Your task to perform on an android device: turn off location Image 0: 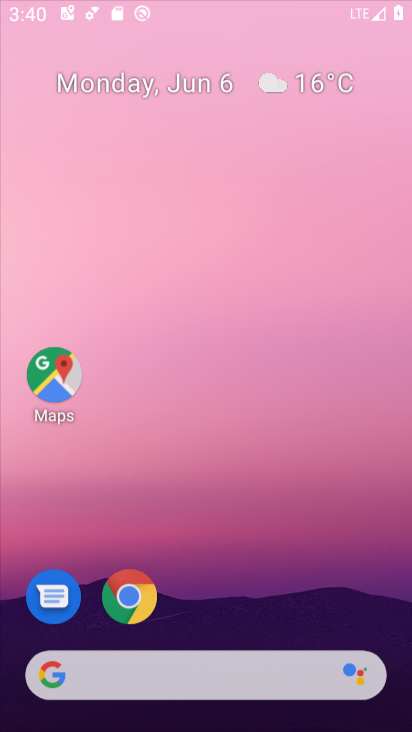
Step 0: click (176, 14)
Your task to perform on an android device: turn off location Image 1: 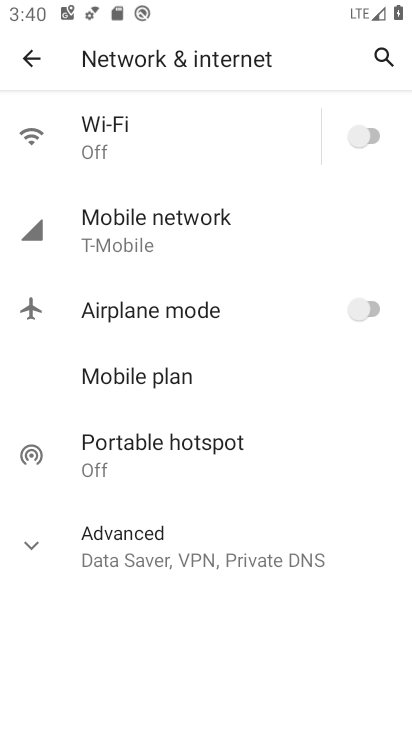
Step 1: press back button
Your task to perform on an android device: turn off location Image 2: 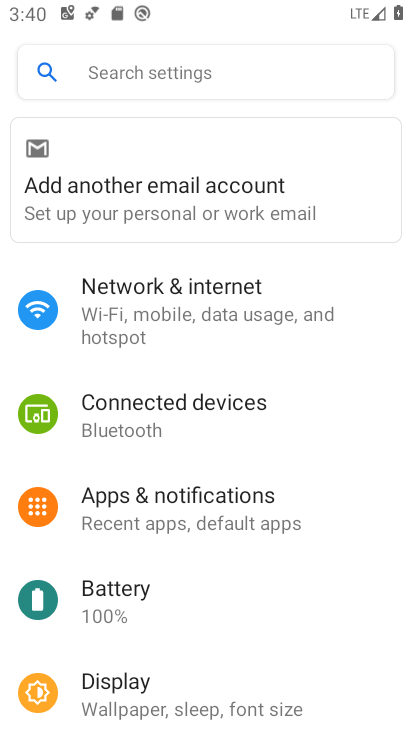
Step 2: drag from (149, 634) to (135, 94)
Your task to perform on an android device: turn off location Image 3: 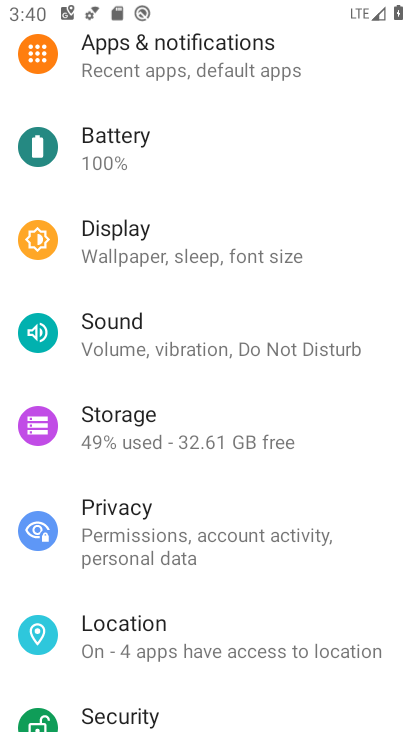
Step 3: drag from (139, 516) to (77, 135)
Your task to perform on an android device: turn off location Image 4: 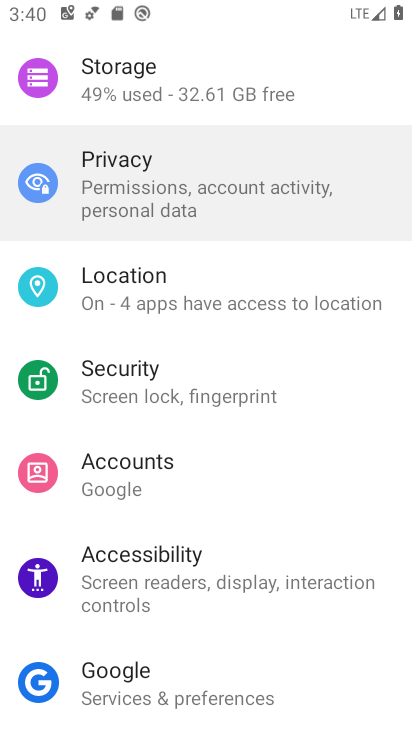
Step 4: drag from (185, 512) to (130, 168)
Your task to perform on an android device: turn off location Image 5: 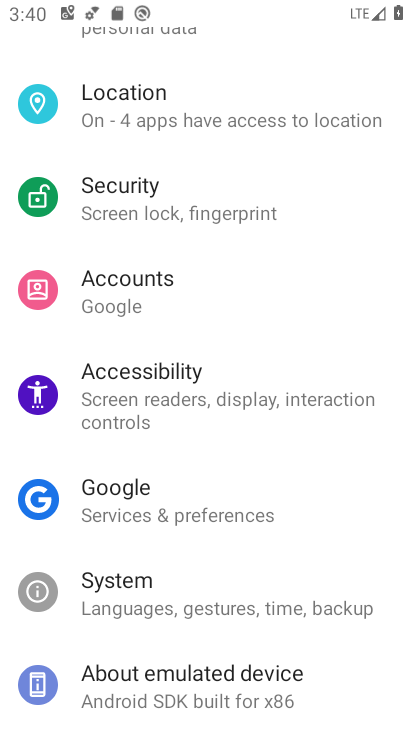
Step 5: click (148, 116)
Your task to perform on an android device: turn off location Image 6: 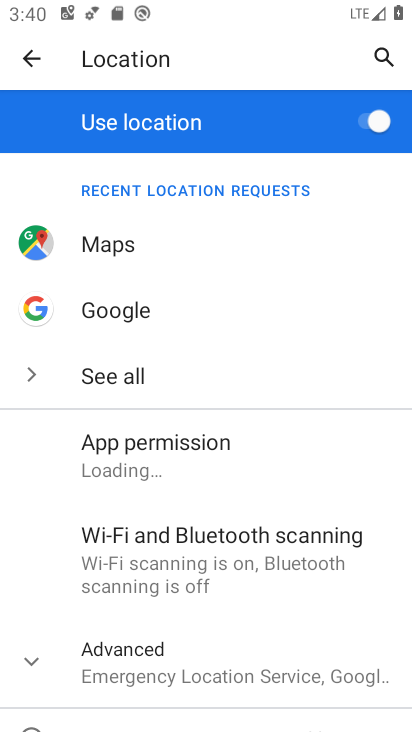
Step 6: click (359, 114)
Your task to perform on an android device: turn off location Image 7: 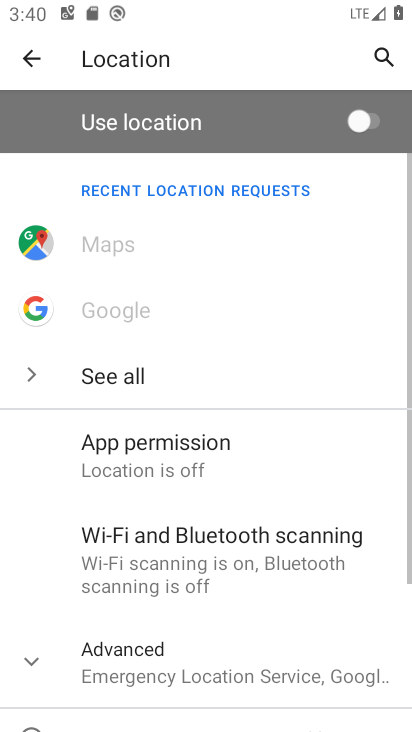
Step 7: task complete